Your task to perform on an android device: Show me my notifications Image 0: 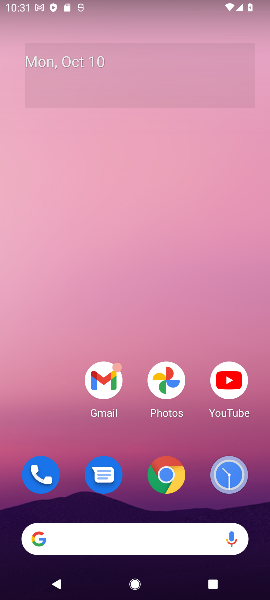
Step 0: drag from (130, 11) to (123, 392)
Your task to perform on an android device: Show me my notifications Image 1: 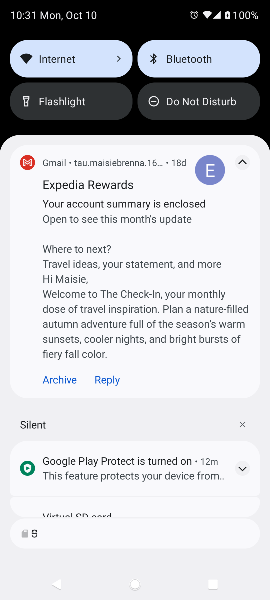
Step 1: task complete